Your task to perform on an android device: change timer sound Image 0: 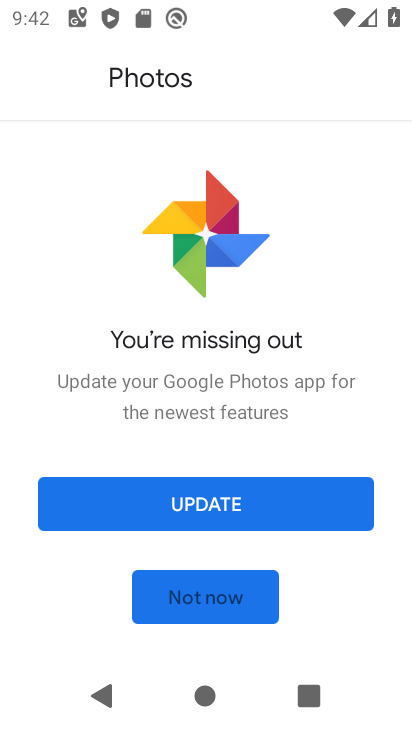
Step 0: press home button
Your task to perform on an android device: change timer sound Image 1: 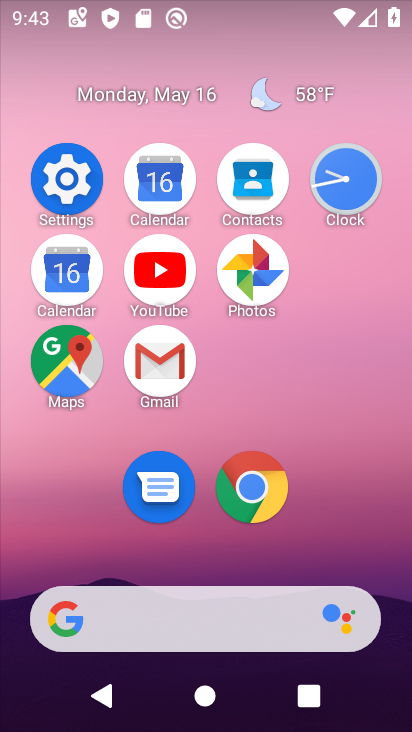
Step 1: click (338, 192)
Your task to perform on an android device: change timer sound Image 2: 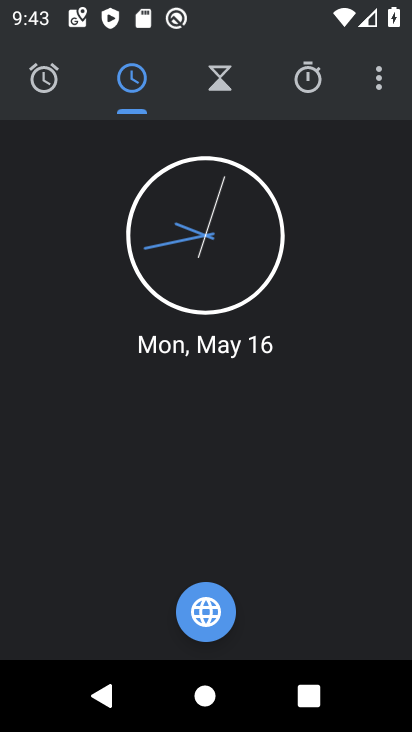
Step 2: click (370, 78)
Your task to perform on an android device: change timer sound Image 3: 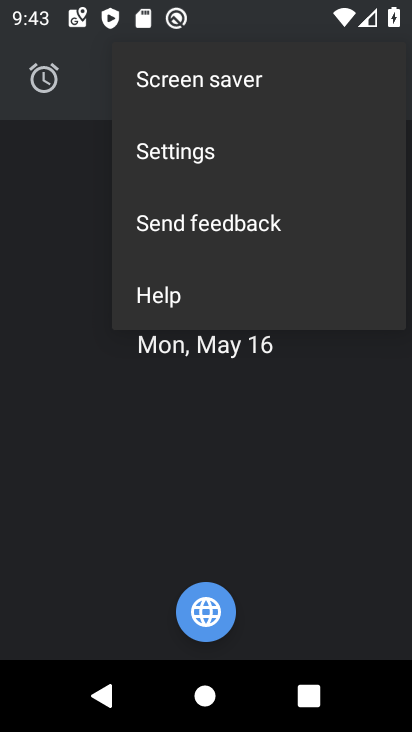
Step 3: click (217, 171)
Your task to perform on an android device: change timer sound Image 4: 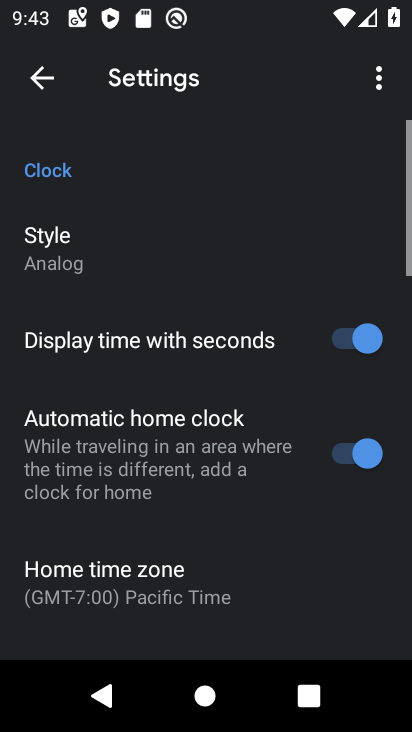
Step 4: drag from (174, 435) to (212, 77)
Your task to perform on an android device: change timer sound Image 5: 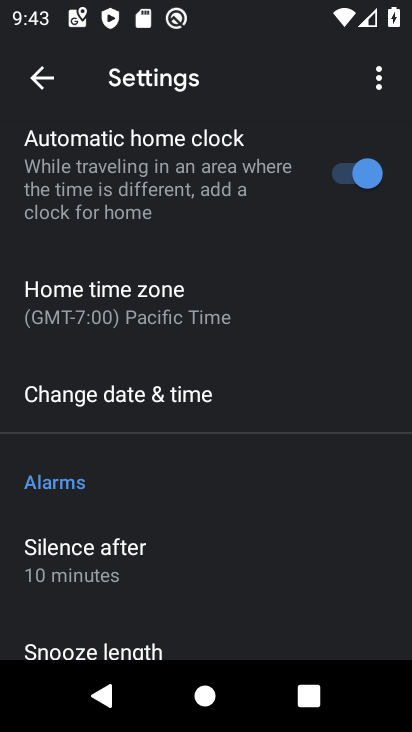
Step 5: drag from (152, 550) to (178, 141)
Your task to perform on an android device: change timer sound Image 6: 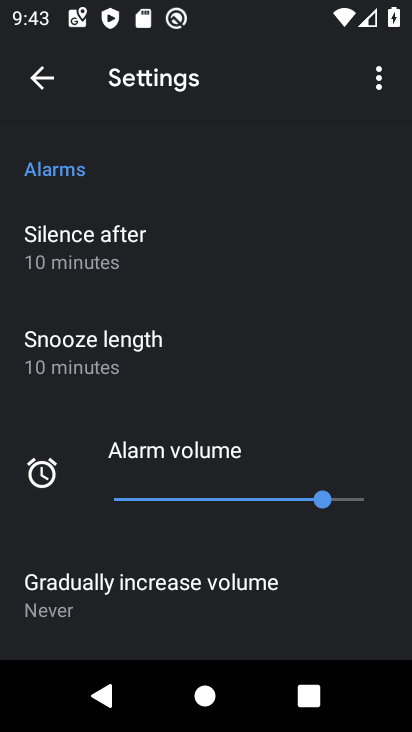
Step 6: drag from (215, 613) to (367, 43)
Your task to perform on an android device: change timer sound Image 7: 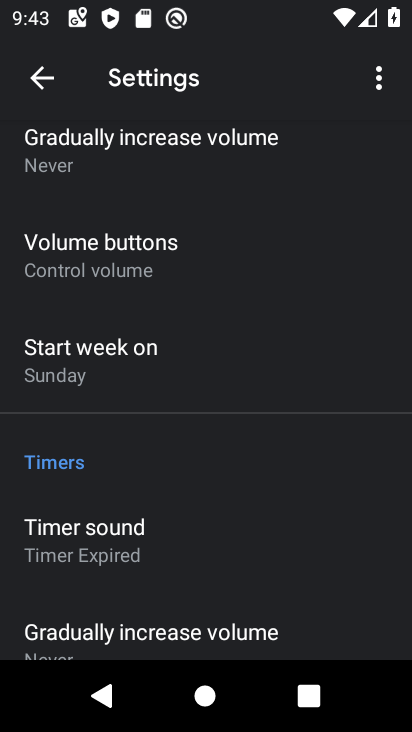
Step 7: click (169, 525)
Your task to perform on an android device: change timer sound Image 8: 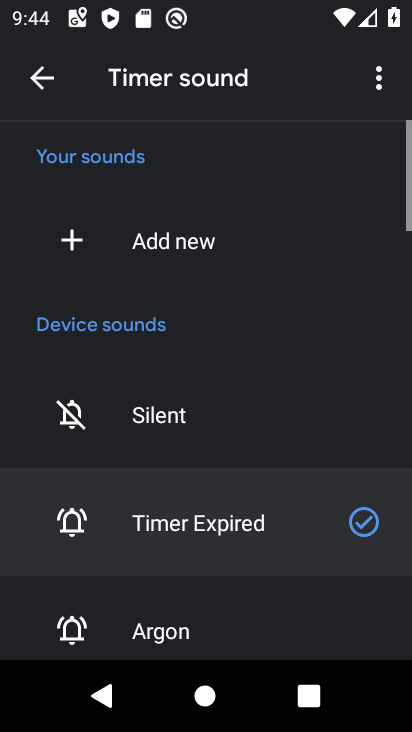
Step 8: click (161, 605)
Your task to perform on an android device: change timer sound Image 9: 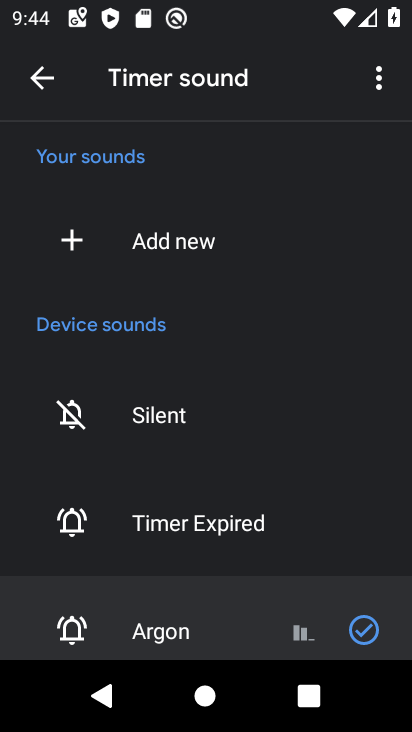
Step 9: task complete